Your task to perform on an android device: set the timer Image 0: 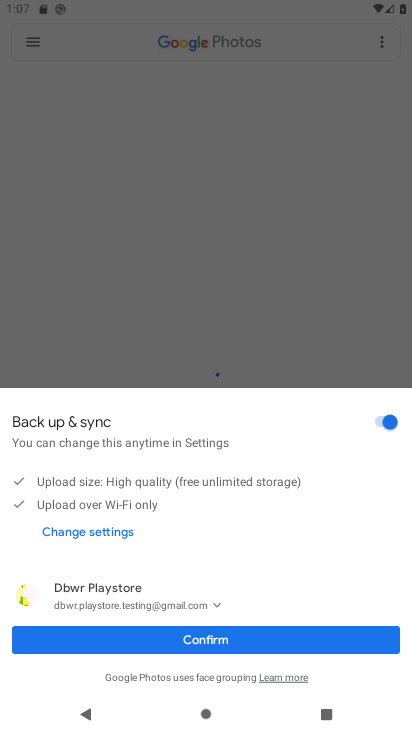
Step 0: press home button
Your task to perform on an android device: set the timer Image 1: 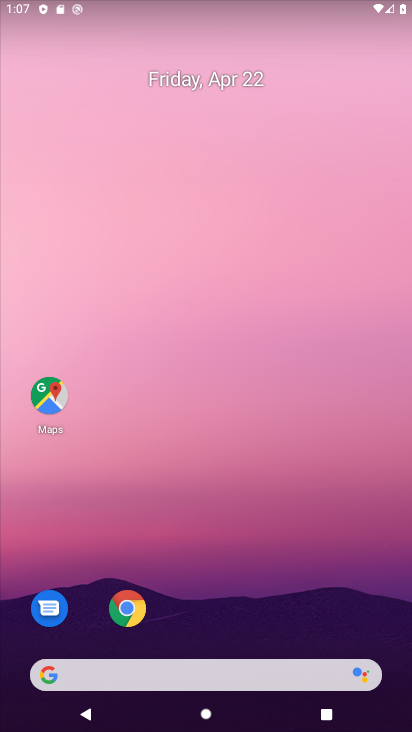
Step 1: drag from (156, 634) to (221, 209)
Your task to perform on an android device: set the timer Image 2: 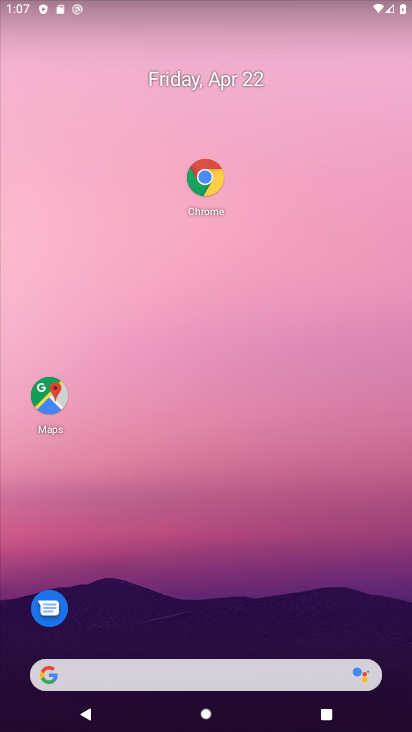
Step 2: drag from (174, 678) to (299, 162)
Your task to perform on an android device: set the timer Image 3: 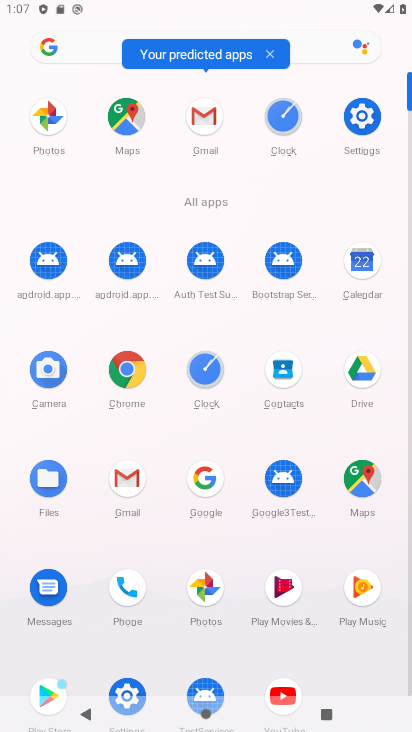
Step 3: click (208, 370)
Your task to perform on an android device: set the timer Image 4: 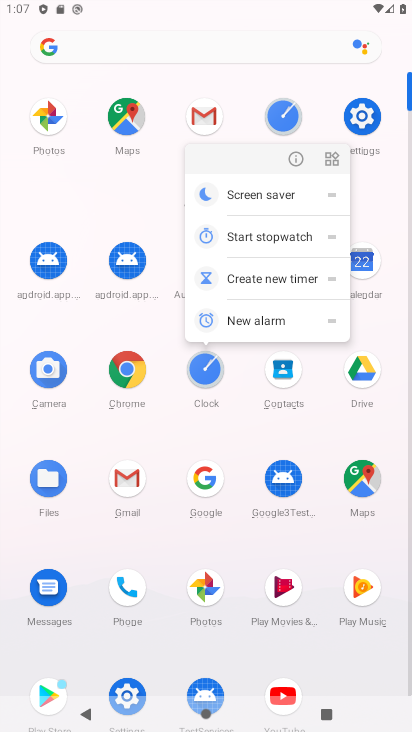
Step 4: click (208, 371)
Your task to perform on an android device: set the timer Image 5: 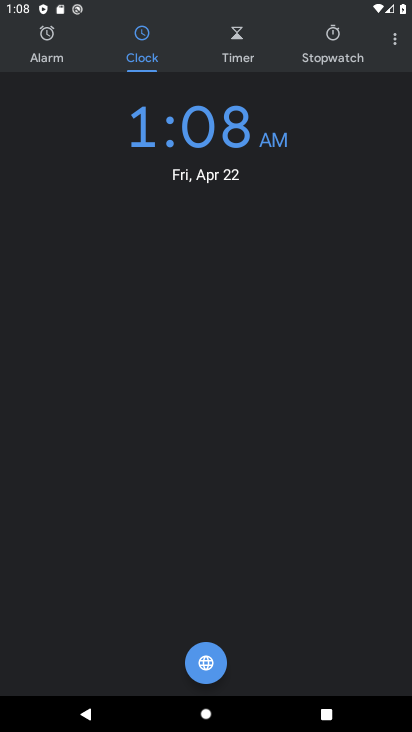
Step 5: click (239, 50)
Your task to perform on an android device: set the timer Image 6: 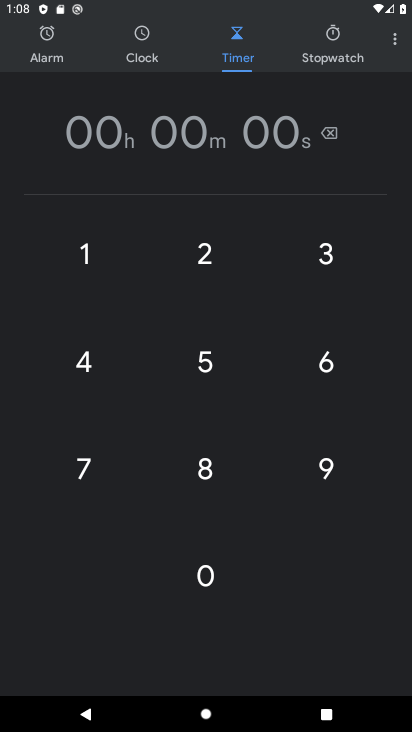
Step 6: click (83, 355)
Your task to perform on an android device: set the timer Image 7: 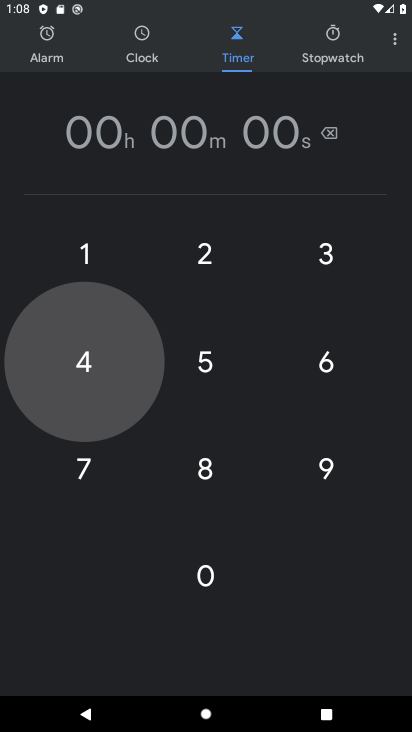
Step 7: click (84, 267)
Your task to perform on an android device: set the timer Image 8: 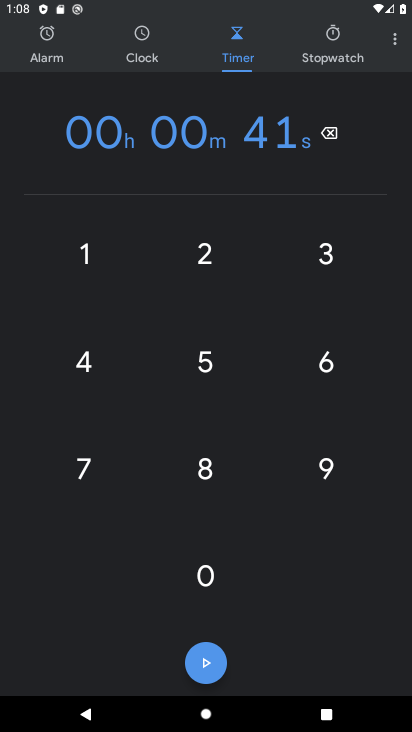
Step 8: click (207, 662)
Your task to perform on an android device: set the timer Image 9: 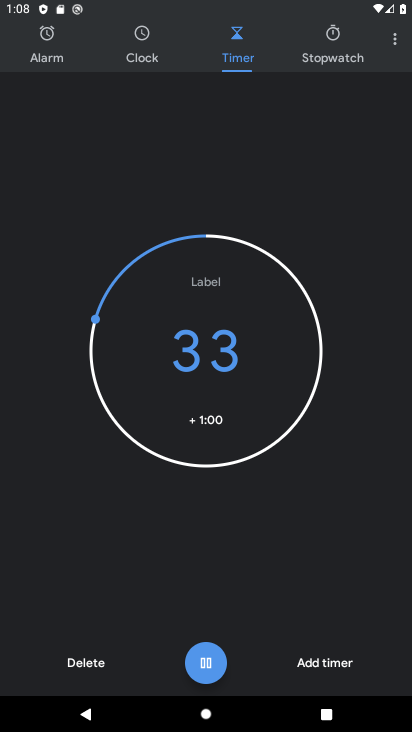
Step 9: click (207, 663)
Your task to perform on an android device: set the timer Image 10: 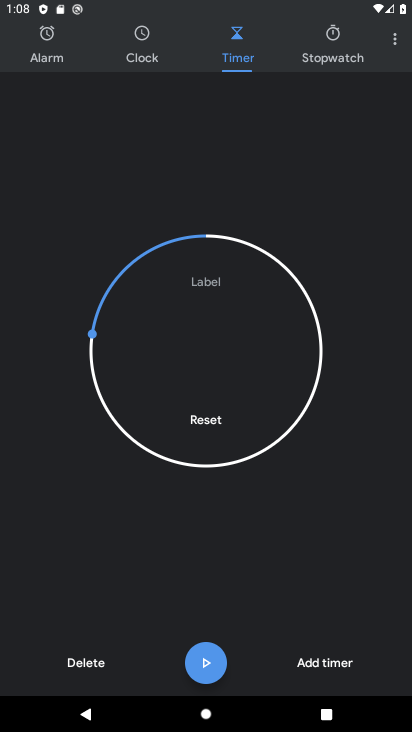
Step 10: task complete